Your task to perform on an android device: Go to settings Image 0: 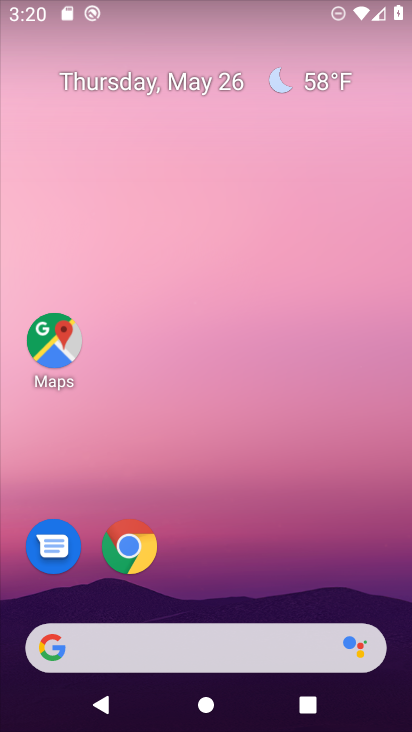
Step 0: press home button
Your task to perform on an android device: Go to settings Image 1: 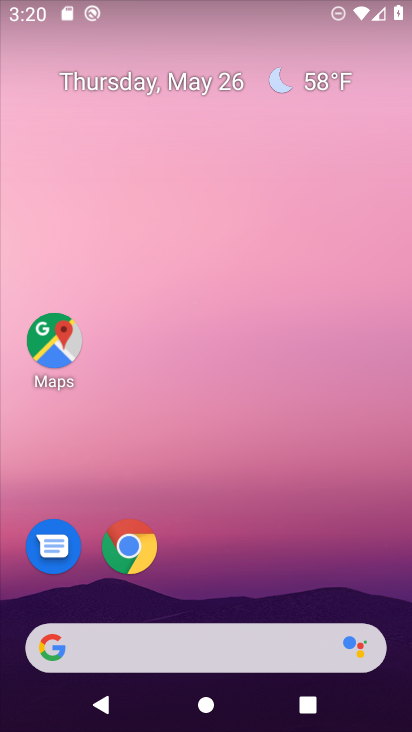
Step 1: drag from (215, 604) to (252, 35)
Your task to perform on an android device: Go to settings Image 2: 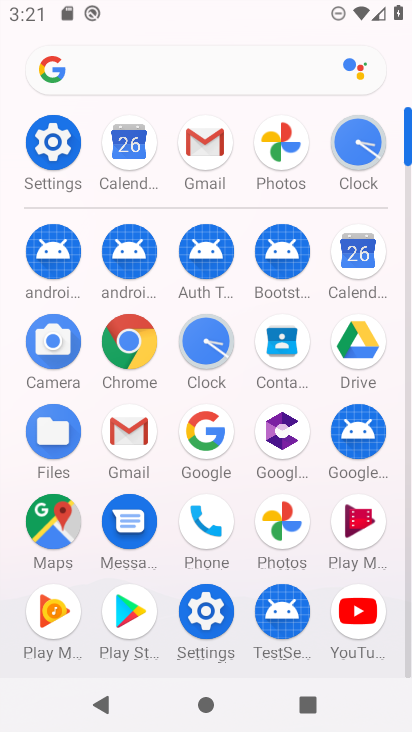
Step 2: click (40, 142)
Your task to perform on an android device: Go to settings Image 3: 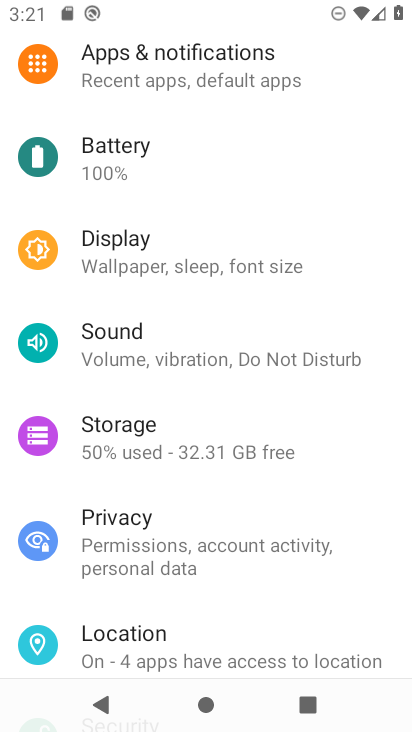
Step 3: task complete